Your task to perform on an android device: change your default location settings in chrome Image 0: 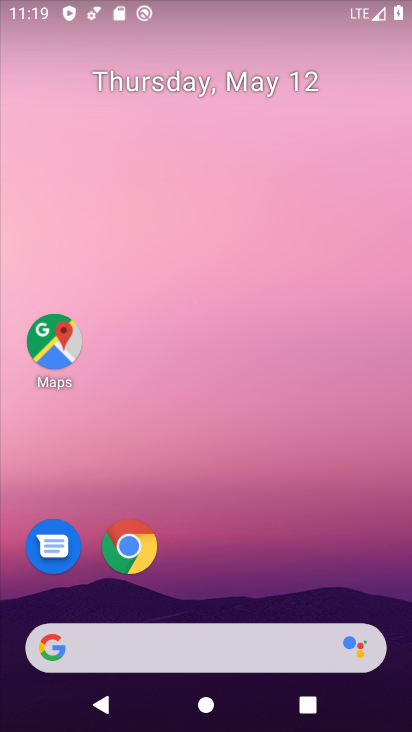
Step 0: drag from (284, 431) to (290, 58)
Your task to perform on an android device: change your default location settings in chrome Image 1: 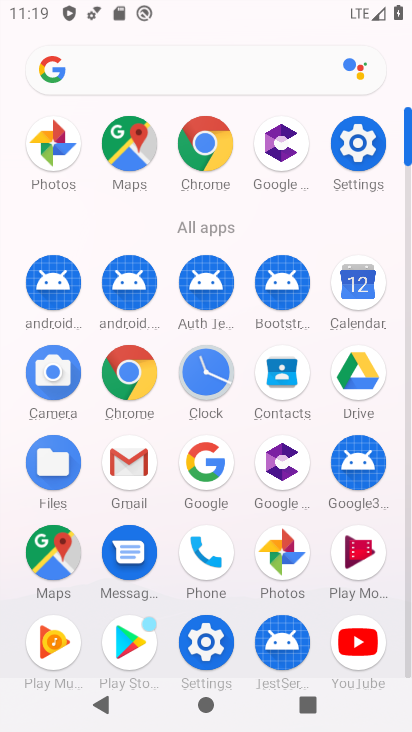
Step 1: click (365, 153)
Your task to perform on an android device: change your default location settings in chrome Image 2: 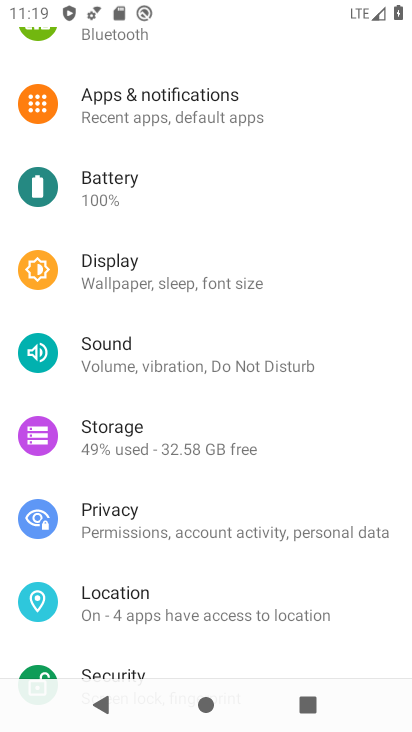
Step 2: press home button
Your task to perform on an android device: change your default location settings in chrome Image 3: 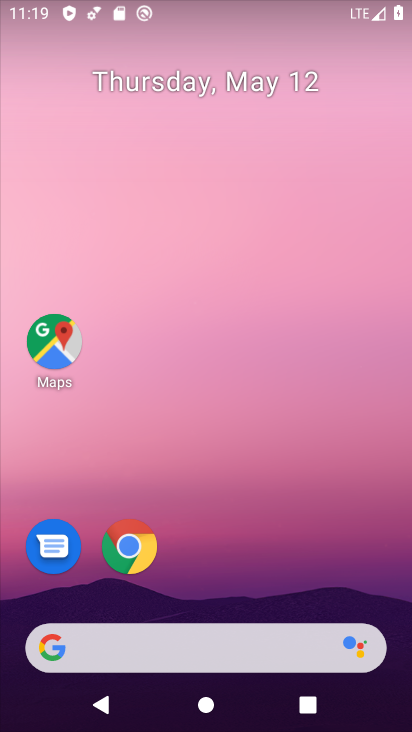
Step 3: click (129, 573)
Your task to perform on an android device: change your default location settings in chrome Image 4: 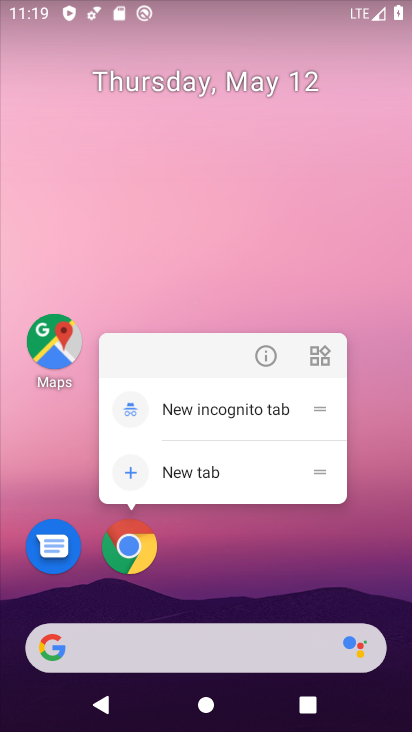
Step 4: click (132, 557)
Your task to perform on an android device: change your default location settings in chrome Image 5: 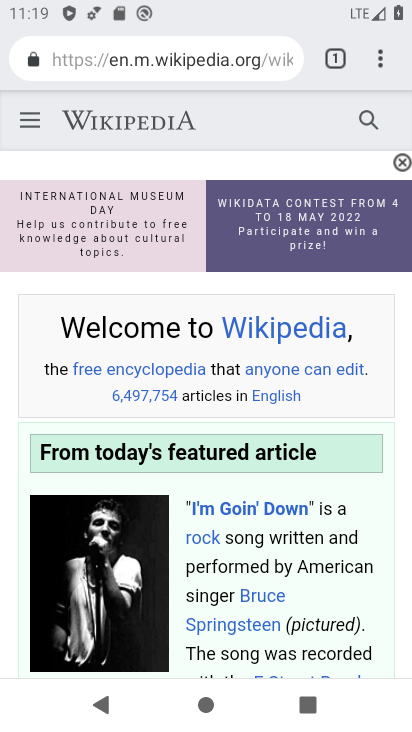
Step 5: click (378, 53)
Your task to perform on an android device: change your default location settings in chrome Image 6: 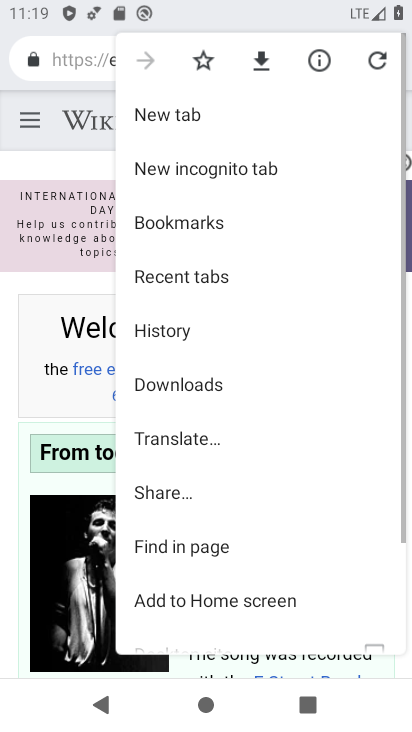
Step 6: drag from (162, 525) to (209, 166)
Your task to perform on an android device: change your default location settings in chrome Image 7: 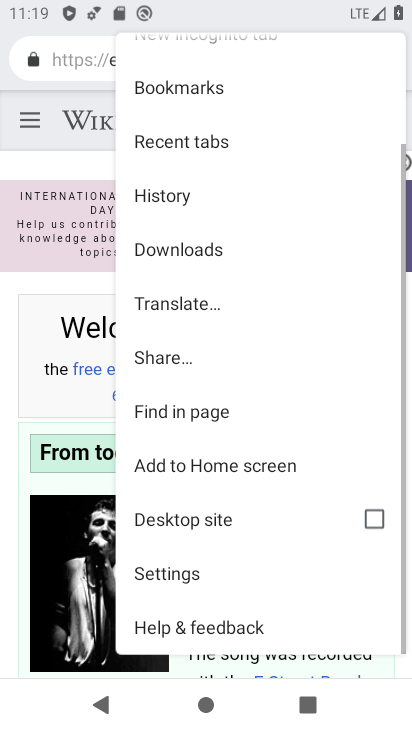
Step 7: click (198, 578)
Your task to perform on an android device: change your default location settings in chrome Image 8: 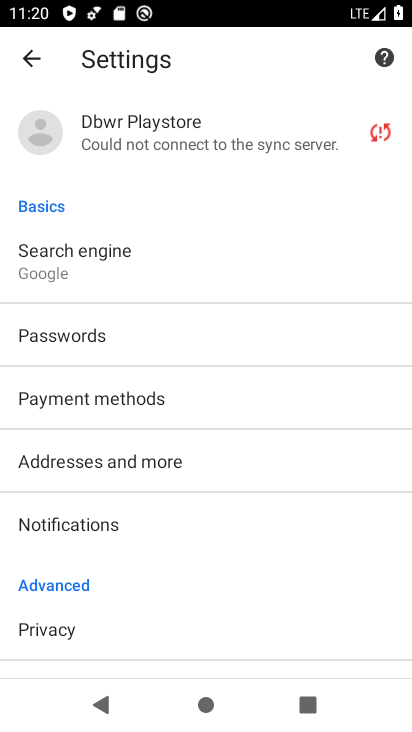
Step 8: drag from (229, 615) to (253, 235)
Your task to perform on an android device: change your default location settings in chrome Image 9: 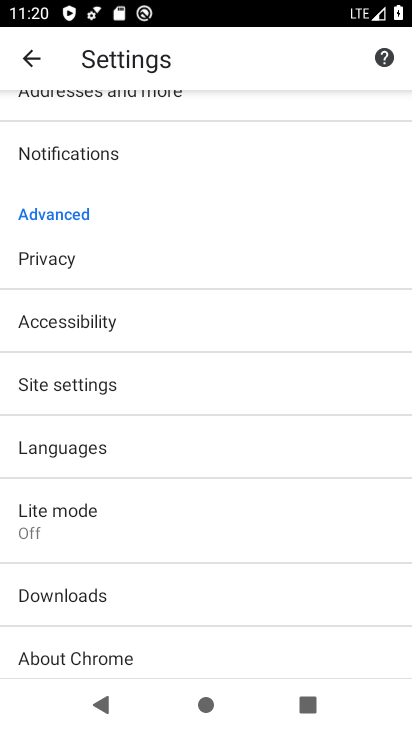
Step 9: click (83, 390)
Your task to perform on an android device: change your default location settings in chrome Image 10: 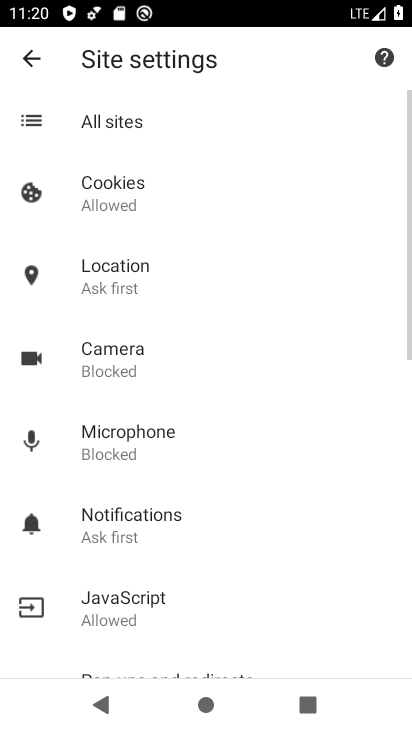
Step 10: click (124, 276)
Your task to perform on an android device: change your default location settings in chrome Image 11: 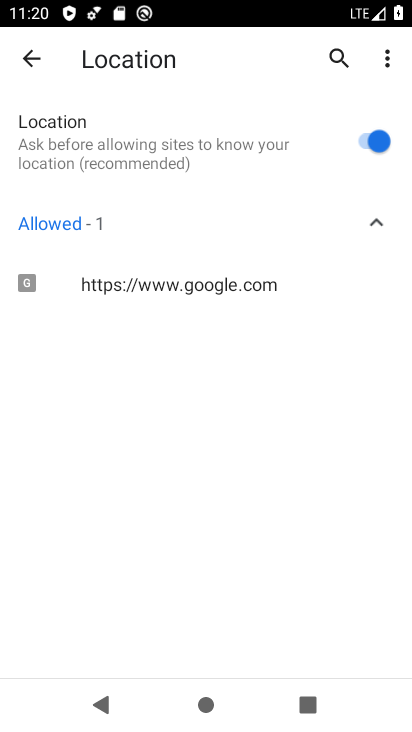
Step 11: click (373, 130)
Your task to perform on an android device: change your default location settings in chrome Image 12: 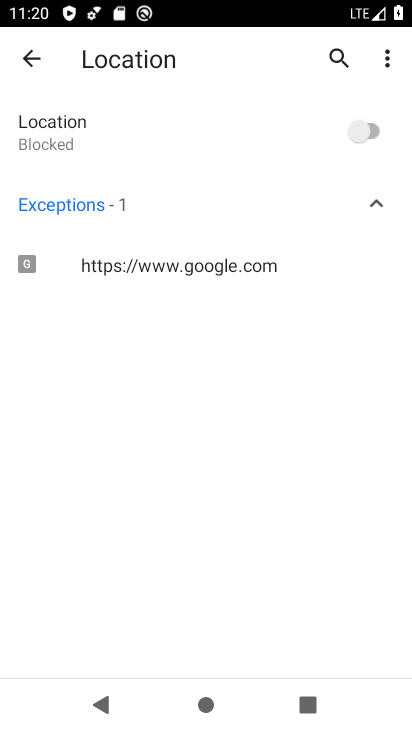
Step 12: task complete